Your task to perform on an android device: Go to settings Image 0: 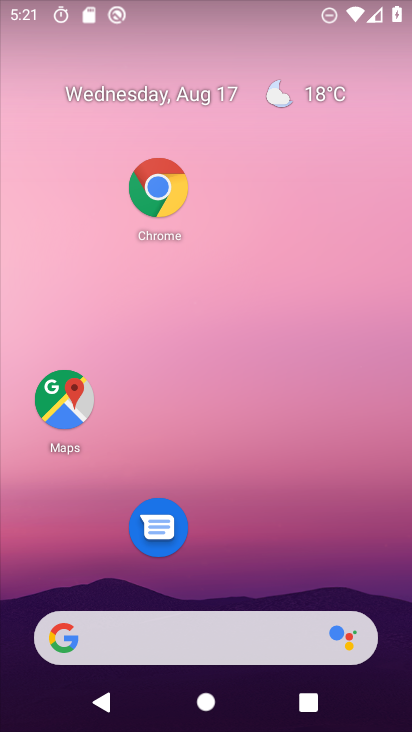
Step 0: drag from (247, 12) to (269, 455)
Your task to perform on an android device: Go to settings Image 1: 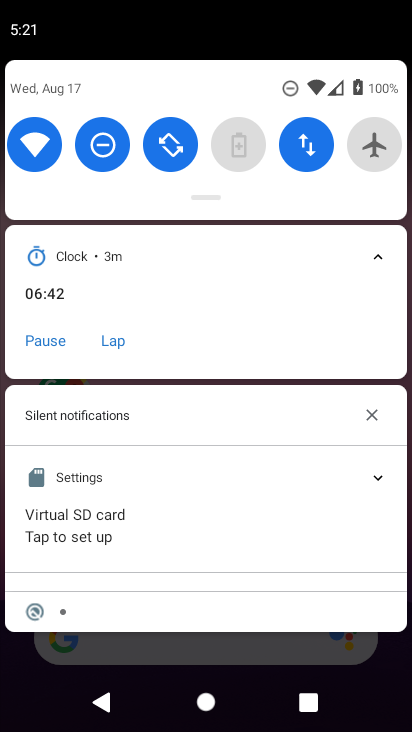
Step 1: click (269, 455)
Your task to perform on an android device: Go to settings Image 2: 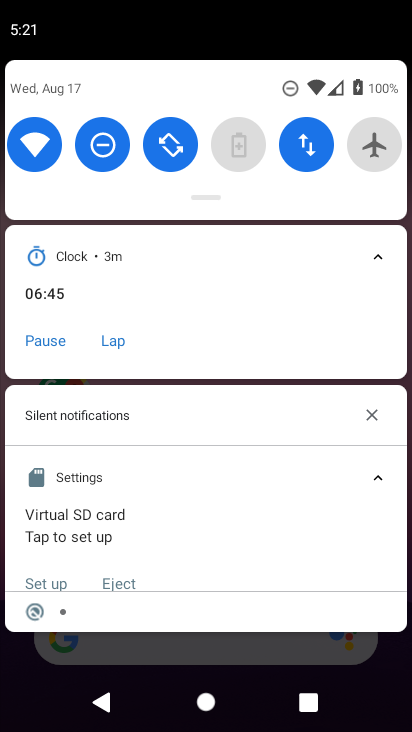
Step 2: press home button
Your task to perform on an android device: Go to settings Image 3: 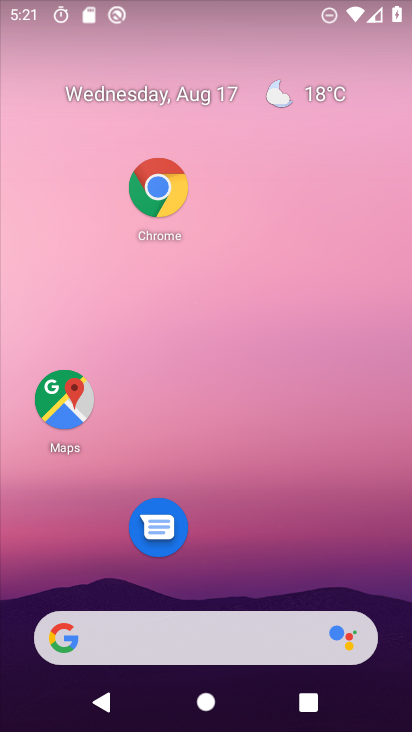
Step 3: drag from (234, 595) to (183, 91)
Your task to perform on an android device: Go to settings Image 4: 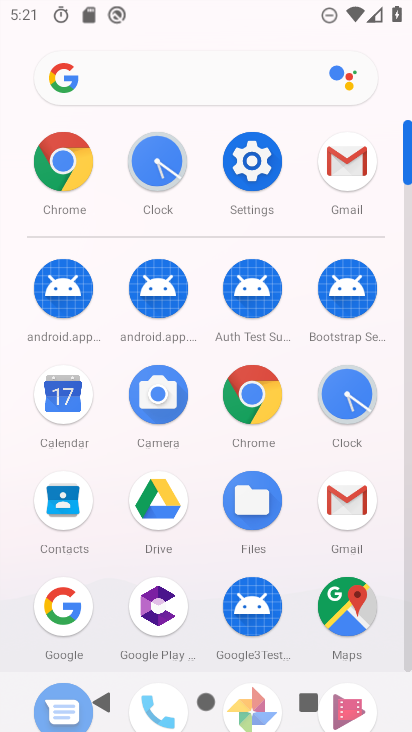
Step 4: click (269, 160)
Your task to perform on an android device: Go to settings Image 5: 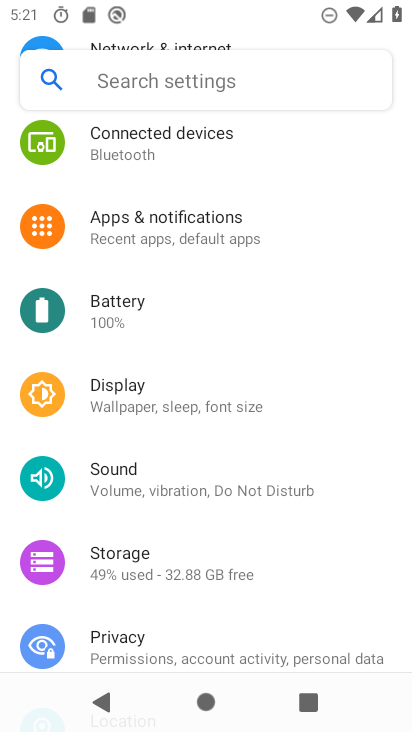
Step 5: task complete